Your task to perform on an android device: Go to privacy settings Image 0: 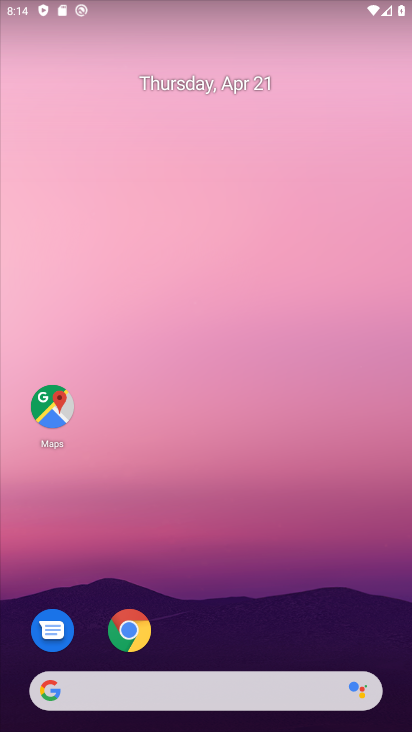
Step 0: drag from (186, 601) to (206, 19)
Your task to perform on an android device: Go to privacy settings Image 1: 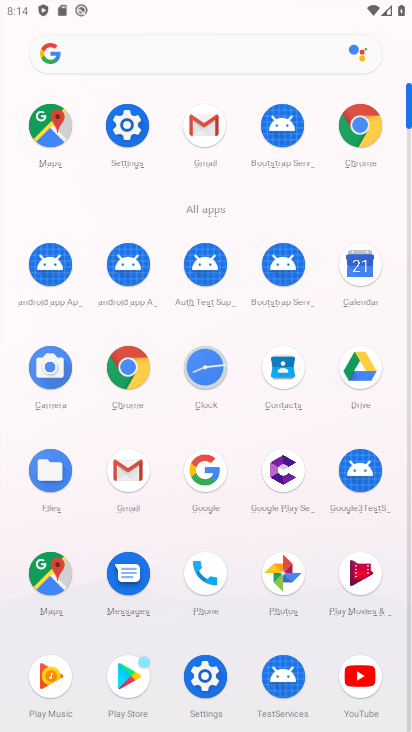
Step 1: click (130, 137)
Your task to perform on an android device: Go to privacy settings Image 2: 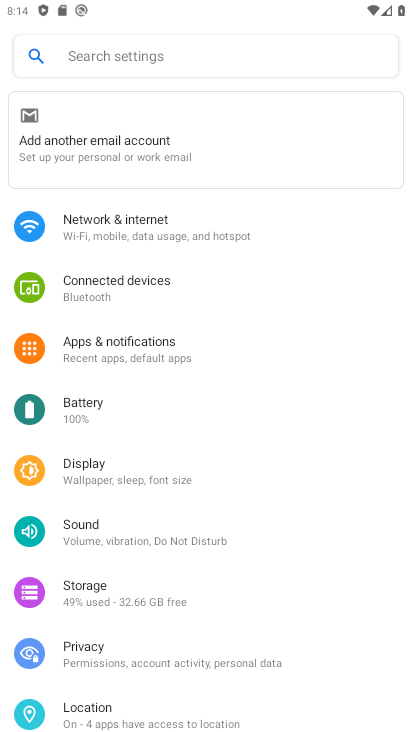
Step 2: click (103, 645)
Your task to perform on an android device: Go to privacy settings Image 3: 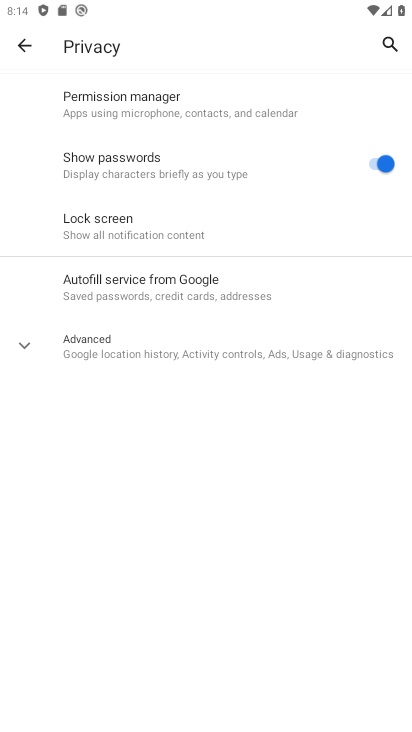
Step 3: task complete